Your task to perform on an android device: delete the emails in spam in the gmail app Image 0: 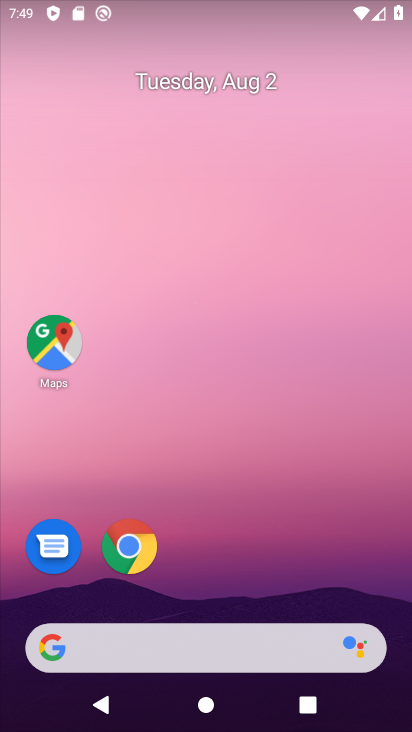
Step 0: drag from (241, 552) to (241, 116)
Your task to perform on an android device: delete the emails in spam in the gmail app Image 1: 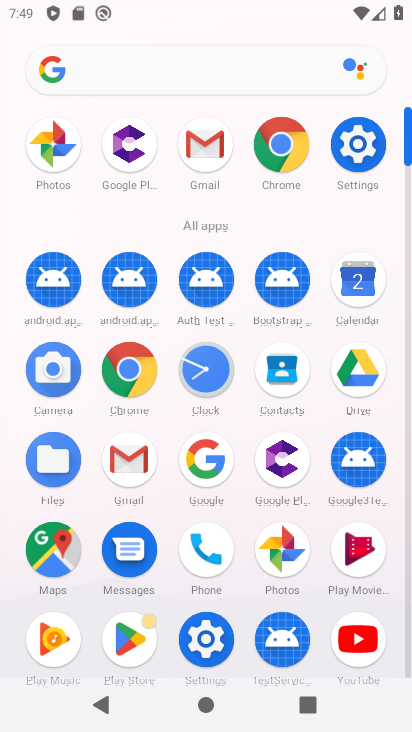
Step 1: click (128, 450)
Your task to perform on an android device: delete the emails in spam in the gmail app Image 2: 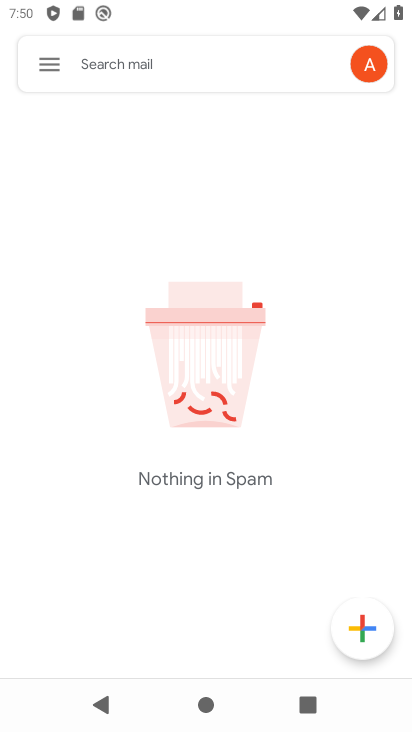
Step 2: task complete